Your task to perform on an android device: change text size in settings app Image 0: 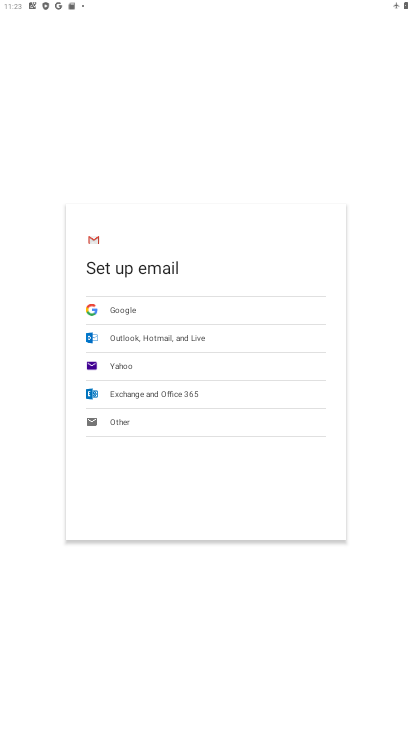
Step 0: press home button
Your task to perform on an android device: change text size in settings app Image 1: 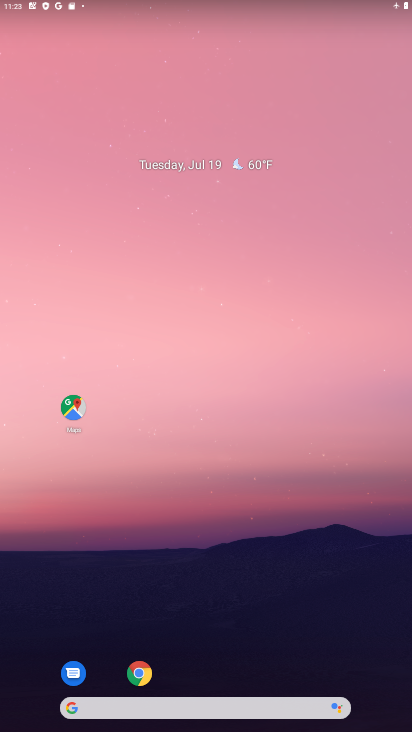
Step 1: drag from (363, 654) to (342, 150)
Your task to perform on an android device: change text size in settings app Image 2: 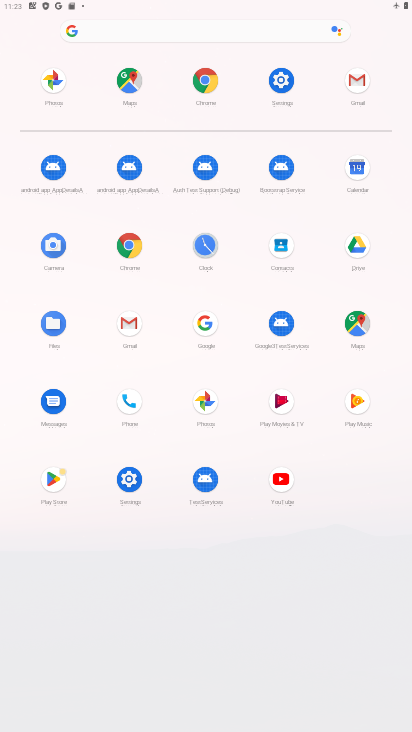
Step 2: click (128, 483)
Your task to perform on an android device: change text size in settings app Image 3: 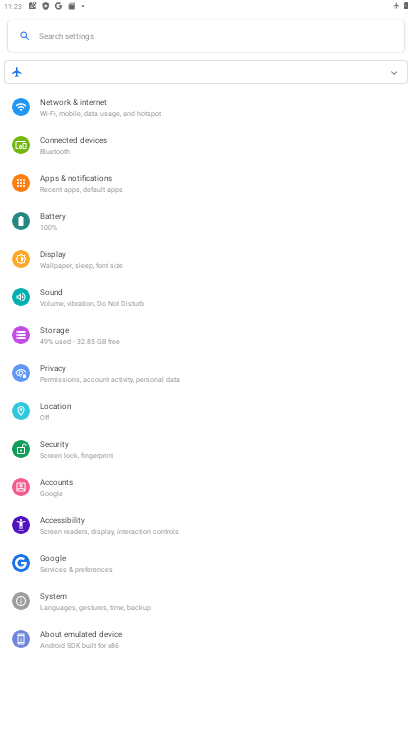
Step 3: click (53, 257)
Your task to perform on an android device: change text size in settings app Image 4: 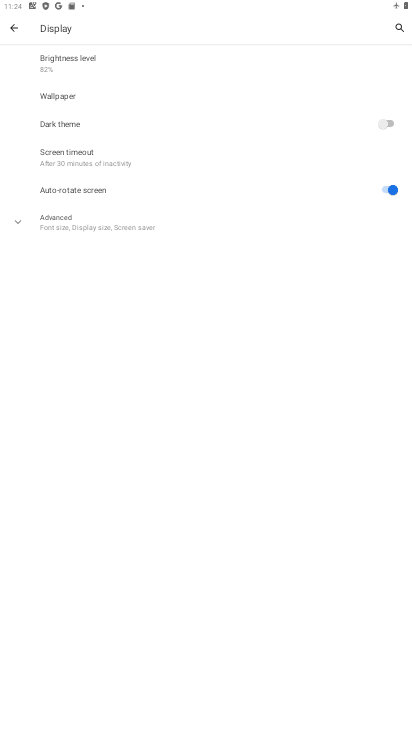
Step 4: click (31, 217)
Your task to perform on an android device: change text size in settings app Image 5: 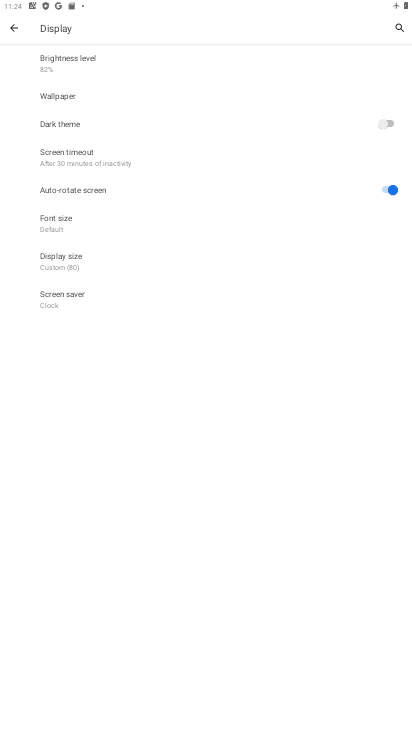
Step 5: click (49, 223)
Your task to perform on an android device: change text size in settings app Image 6: 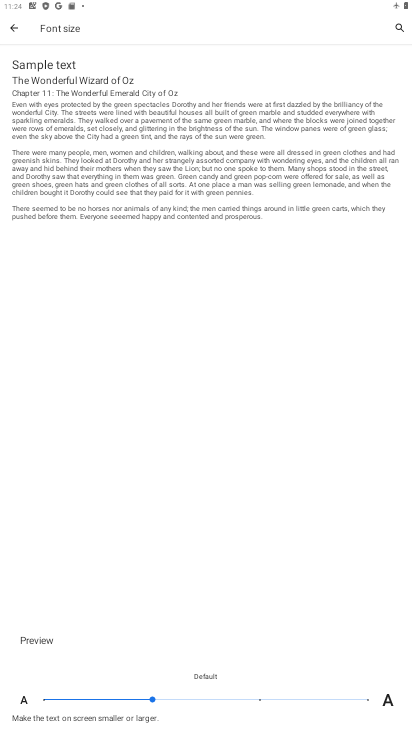
Step 6: click (365, 700)
Your task to perform on an android device: change text size in settings app Image 7: 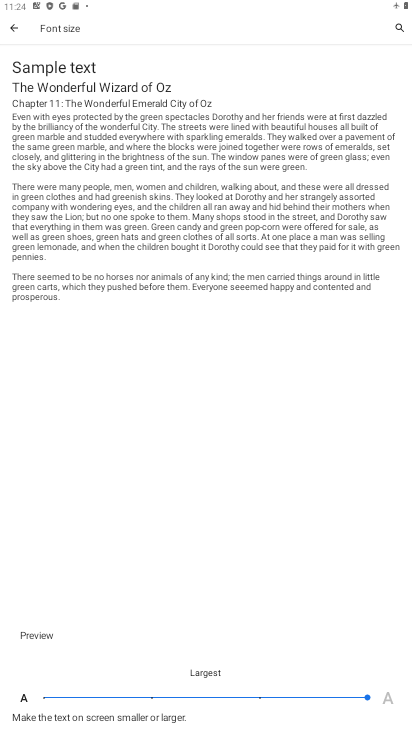
Step 7: task complete